Your task to perform on an android device: open the mobile data screen to see how much data has been used Image 0: 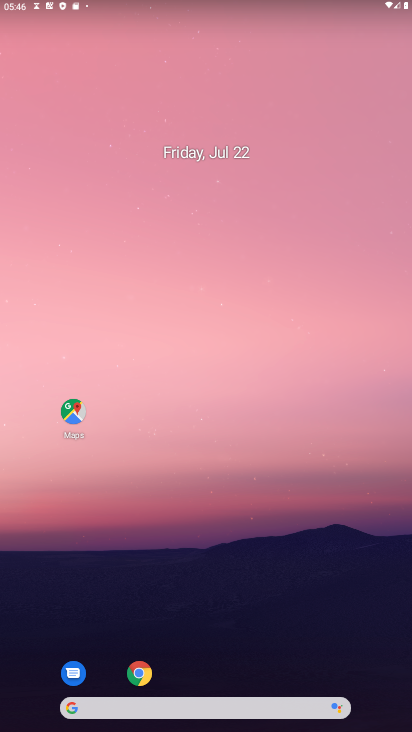
Step 0: press home button
Your task to perform on an android device: open the mobile data screen to see how much data has been used Image 1: 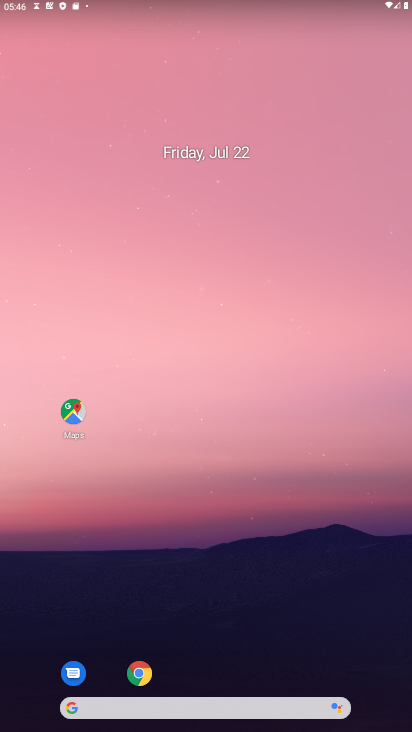
Step 1: drag from (219, 639) to (231, 0)
Your task to perform on an android device: open the mobile data screen to see how much data has been used Image 2: 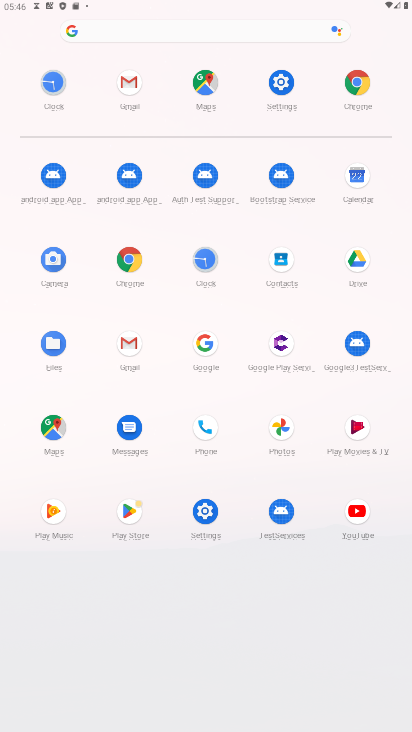
Step 2: click (282, 91)
Your task to perform on an android device: open the mobile data screen to see how much data has been used Image 3: 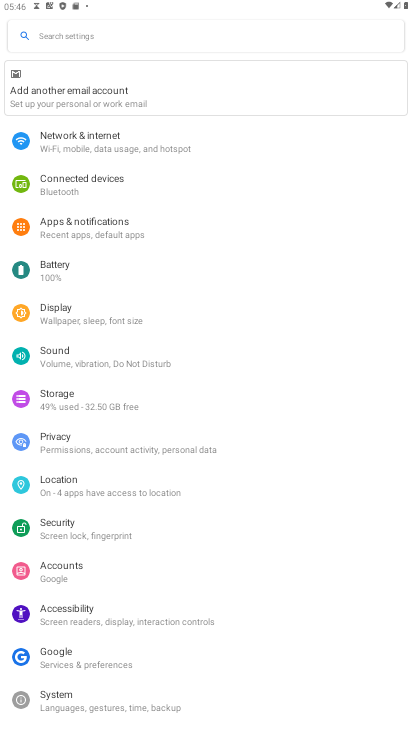
Step 3: click (74, 135)
Your task to perform on an android device: open the mobile data screen to see how much data has been used Image 4: 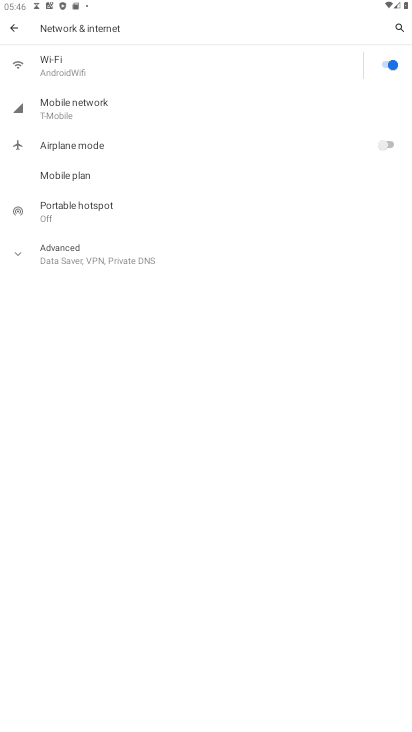
Step 4: click (45, 100)
Your task to perform on an android device: open the mobile data screen to see how much data has been used Image 5: 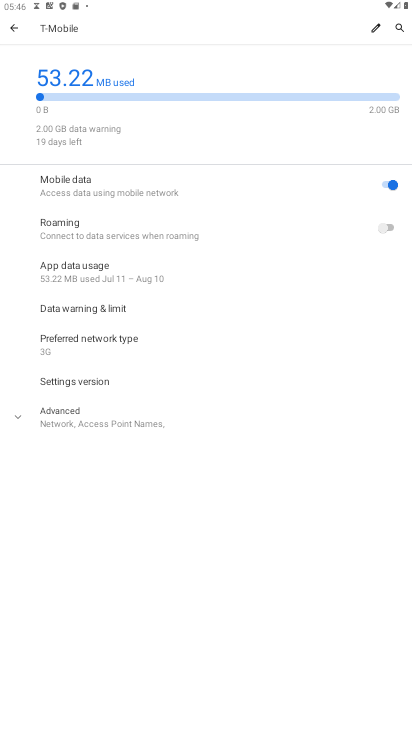
Step 5: click (64, 277)
Your task to perform on an android device: open the mobile data screen to see how much data has been used Image 6: 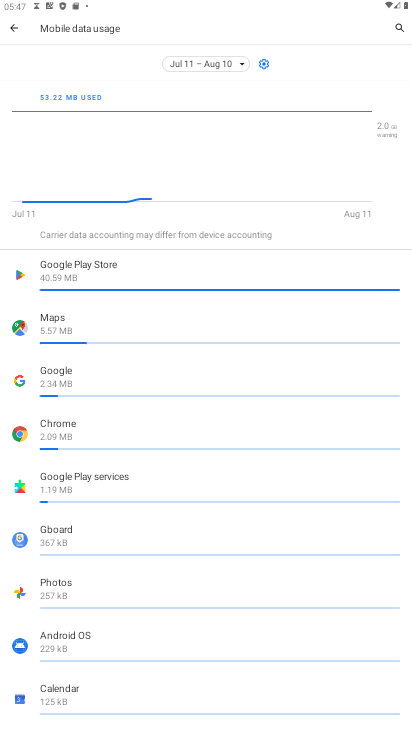
Step 6: task complete